Your task to perform on an android device: toggle airplane mode Image 0: 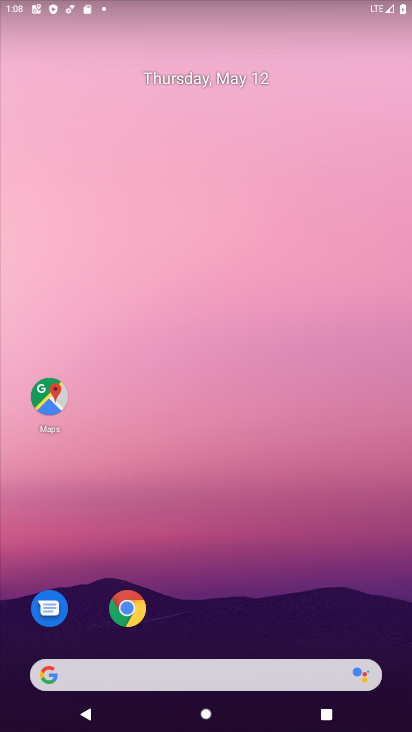
Step 0: drag from (326, 610) to (411, 48)
Your task to perform on an android device: toggle airplane mode Image 1: 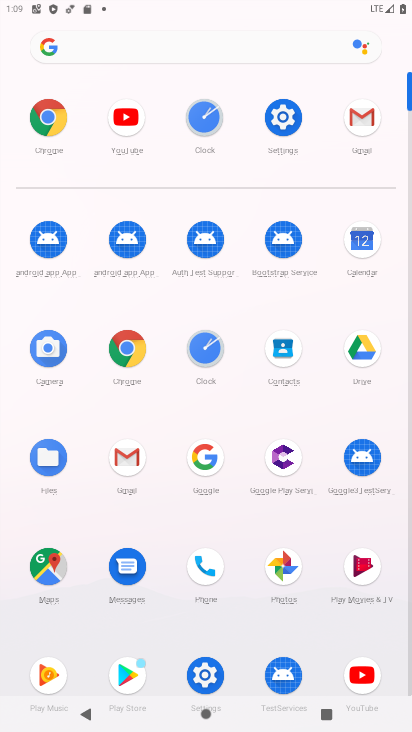
Step 1: click (295, 112)
Your task to perform on an android device: toggle airplane mode Image 2: 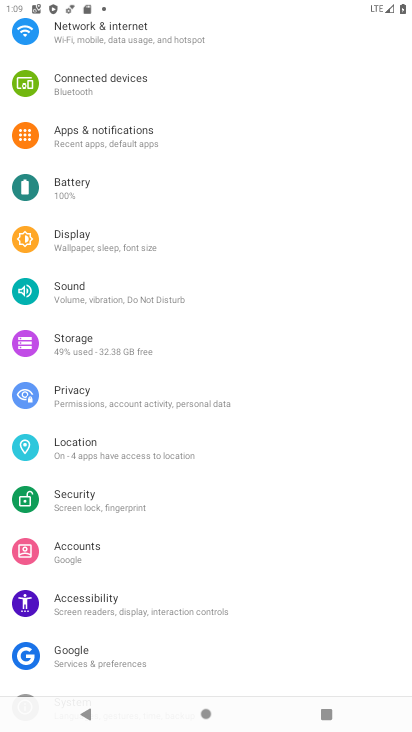
Step 2: click (157, 42)
Your task to perform on an android device: toggle airplane mode Image 3: 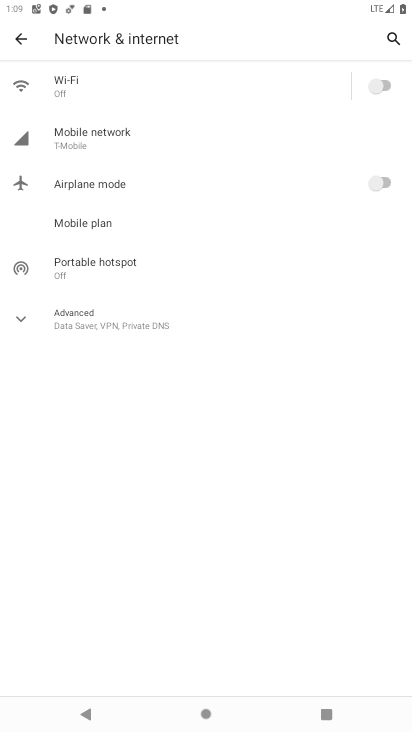
Step 3: click (86, 187)
Your task to perform on an android device: toggle airplane mode Image 4: 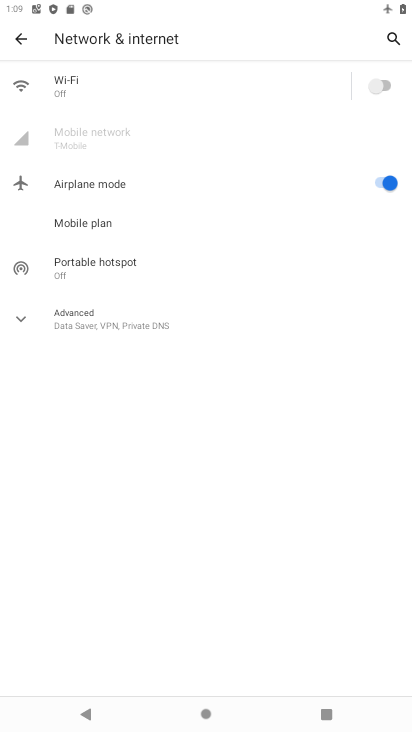
Step 4: task complete